Your task to perform on an android device: change text size in settings app Image 0: 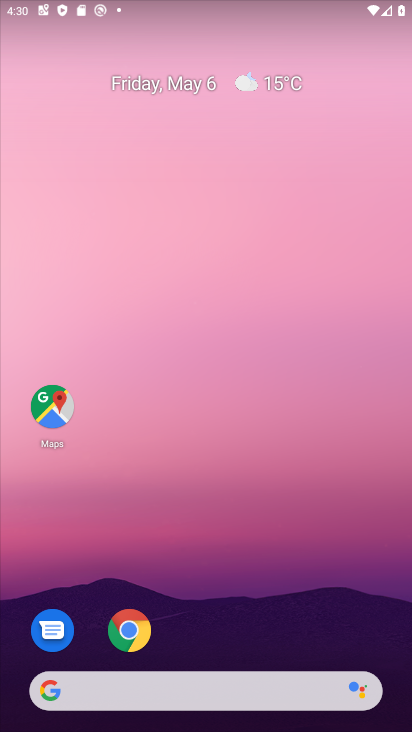
Step 0: drag from (222, 632) to (282, 111)
Your task to perform on an android device: change text size in settings app Image 1: 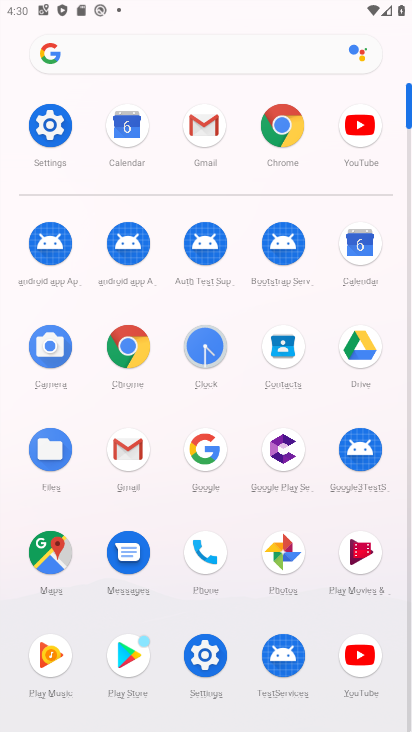
Step 1: click (53, 130)
Your task to perform on an android device: change text size in settings app Image 2: 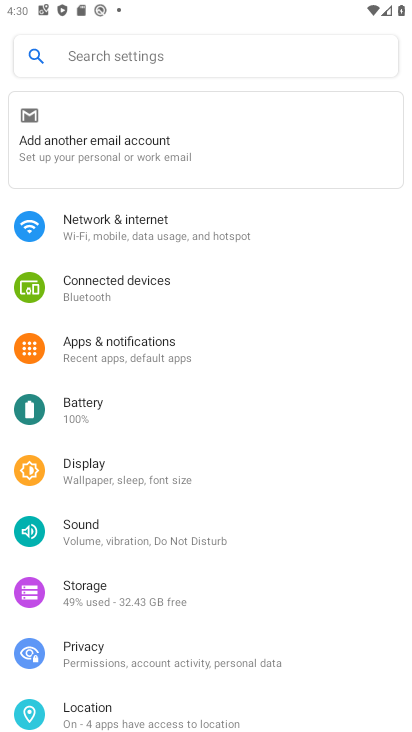
Step 2: click (115, 57)
Your task to perform on an android device: change text size in settings app Image 3: 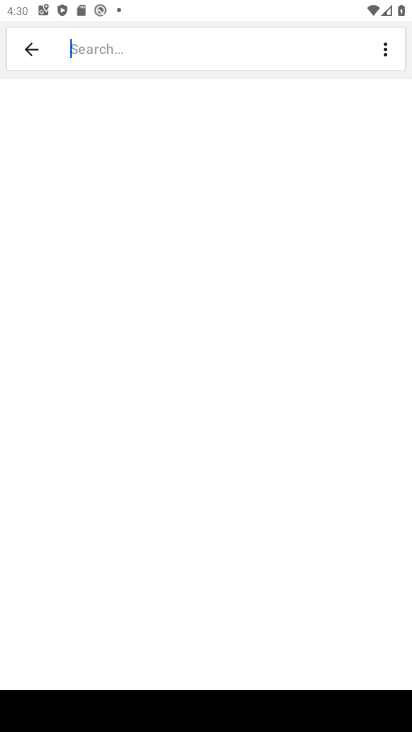
Step 3: type "text size"
Your task to perform on an android device: change text size in settings app Image 4: 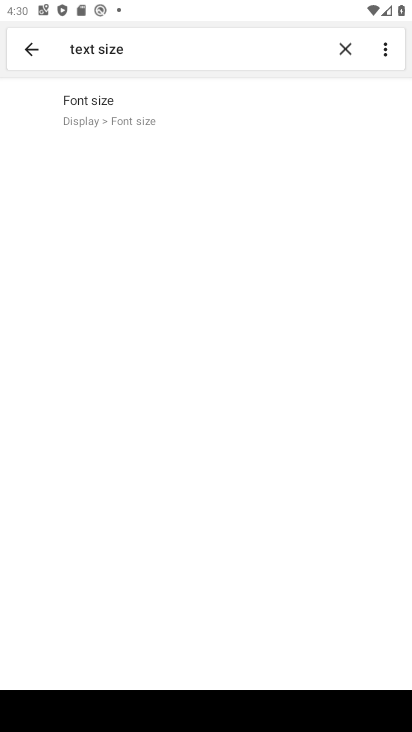
Step 4: click (102, 108)
Your task to perform on an android device: change text size in settings app Image 5: 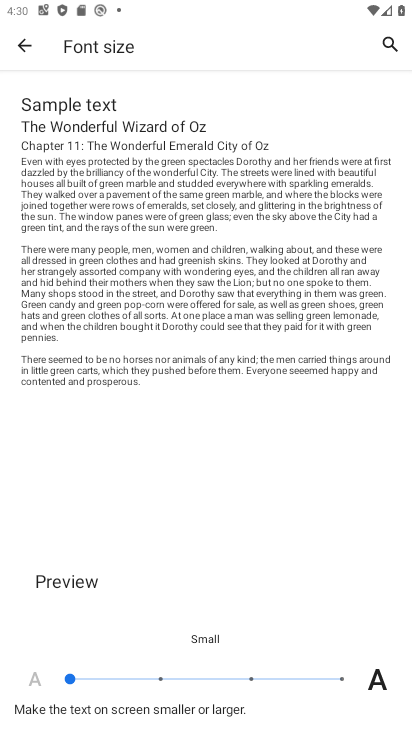
Step 5: task complete